Your task to perform on an android device: Open settings on Google Maps Image 0: 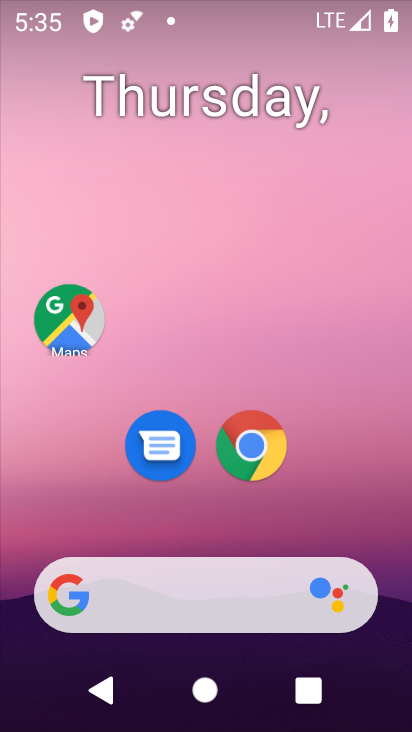
Step 0: drag from (293, 508) to (279, 141)
Your task to perform on an android device: Open settings on Google Maps Image 1: 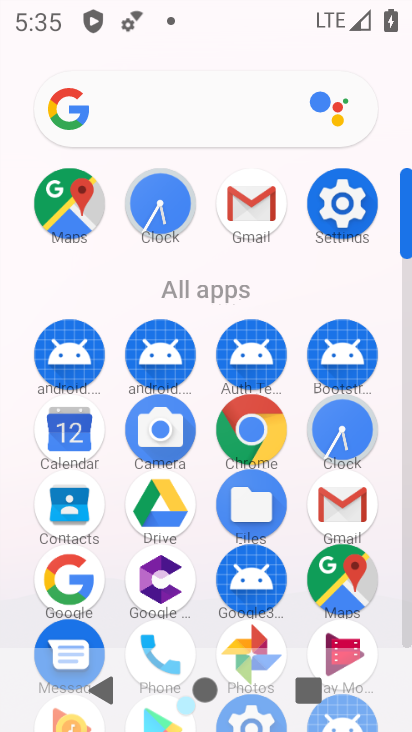
Step 1: drag from (290, 326) to (298, 36)
Your task to perform on an android device: Open settings on Google Maps Image 2: 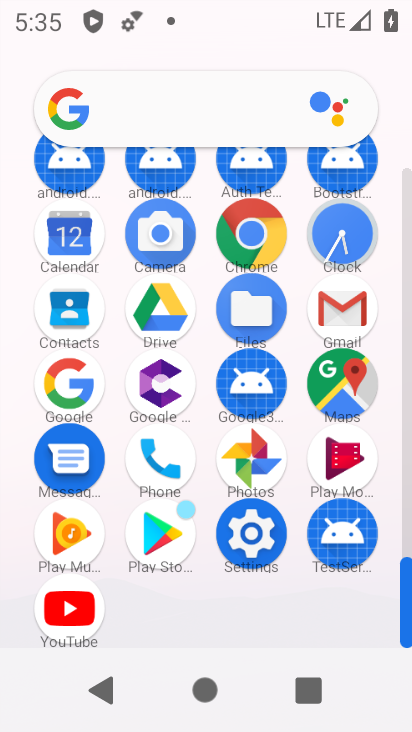
Step 2: click (243, 451)
Your task to perform on an android device: Open settings on Google Maps Image 3: 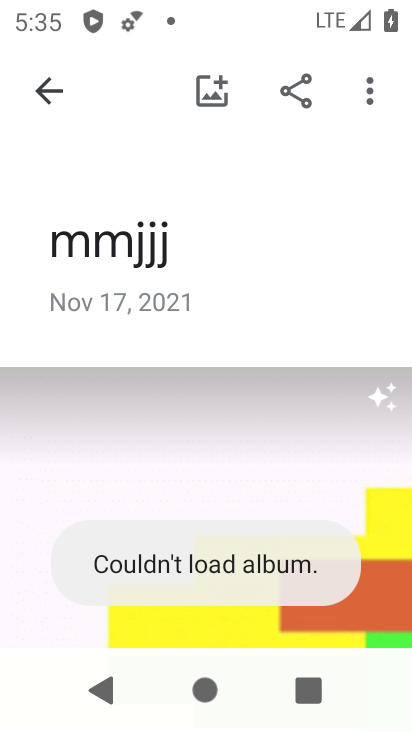
Step 3: click (44, 93)
Your task to perform on an android device: Open settings on Google Maps Image 4: 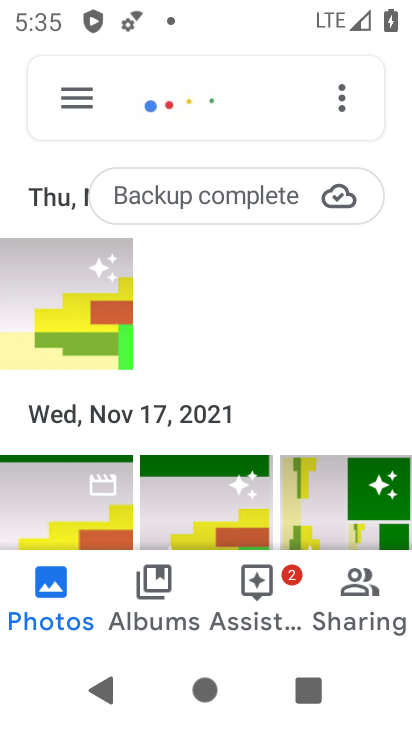
Step 4: press home button
Your task to perform on an android device: Open settings on Google Maps Image 5: 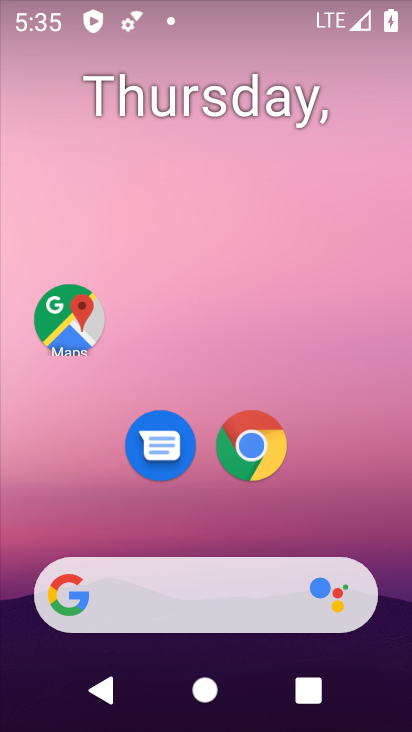
Step 5: click (43, 318)
Your task to perform on an android device: Open settings on Google Maps Image 6: 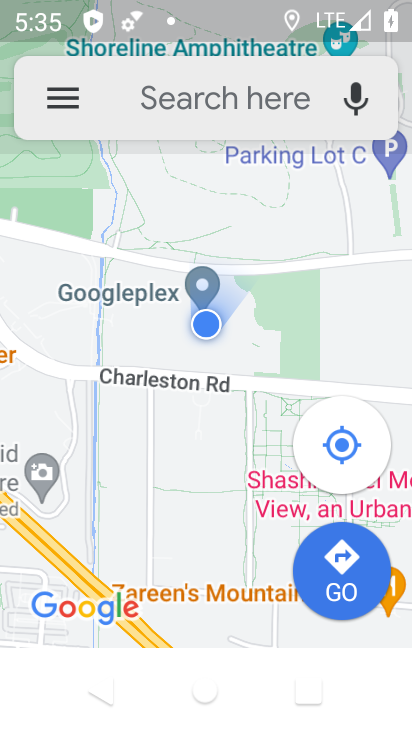
Step 6: task complete